Your task to perform on an android device: stop showing notifications on the lock screen Image 0: 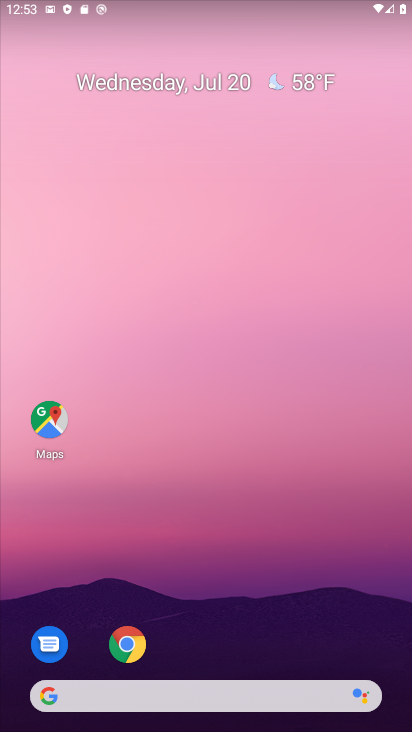
Step 0: drag from (198, 645) to (189, 176)
Your task to perform on an android device: stop showing notifications on the lock screen Image 1: 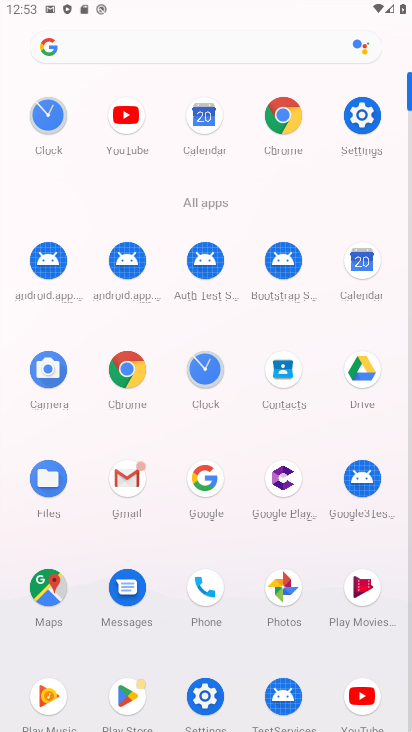
Step 1: click (361, 113)
Your task to perform on an android device: stop showing notifications on the lock screen Image 2: 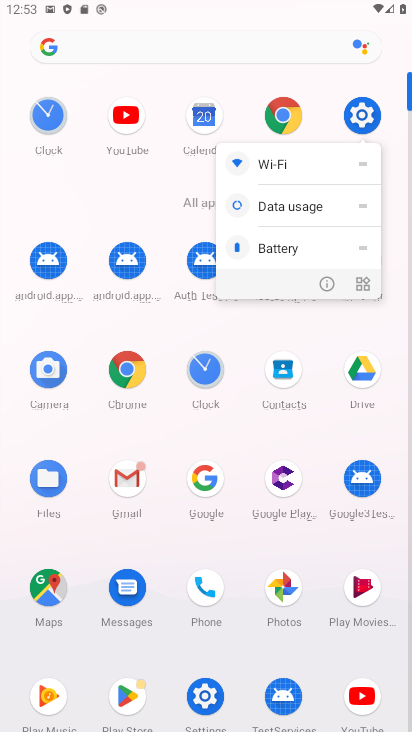
Step 2: click (349, 108)
Your task to perform on an android device: stop showing notifications on the lock screen Image 3: 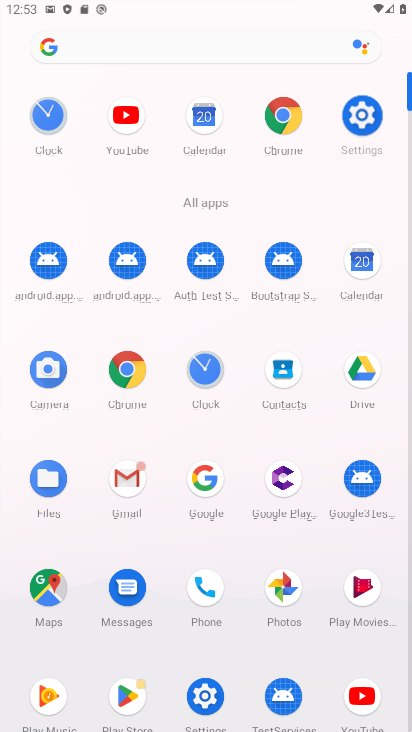
Step 3: click (361, 115)
Your task to perform on an android device: stop showing notifications on the lock screen Image 4: 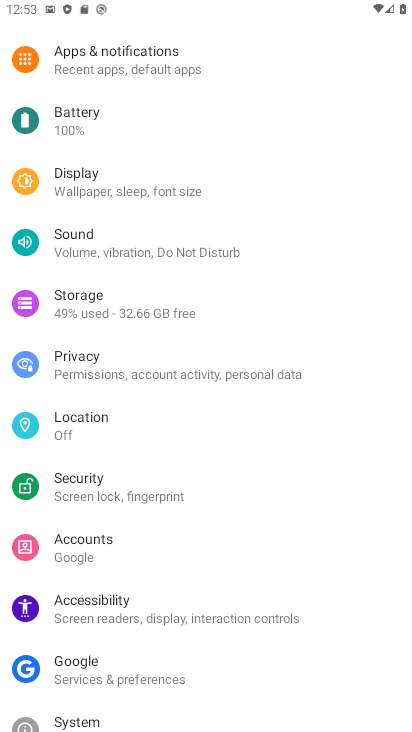
Step 4: click (104, 67)
Your task to perform on an android device: stop showing notifications on the lock screen Image 5: 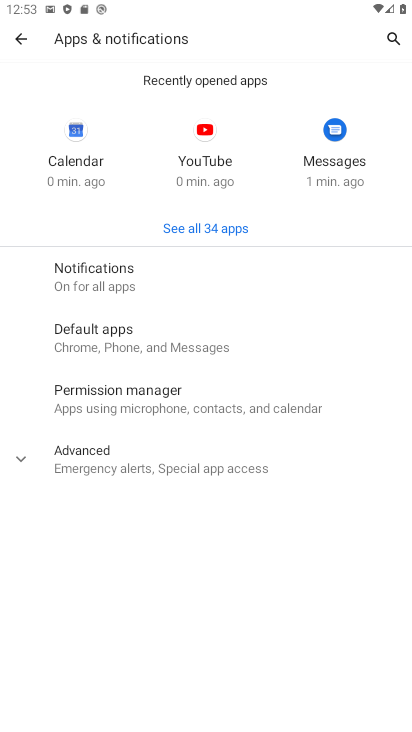
Step 5: click (155, 261)
Your task to perform on an android device: stop showing notifications on the lock screen Image 6: 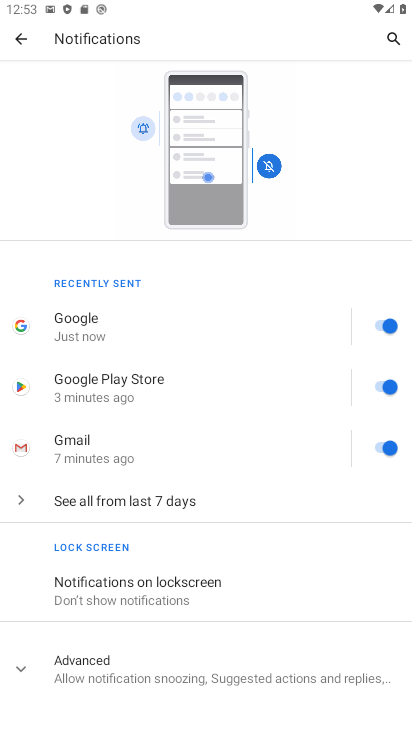
Step 6: click (133, 585)
Your task to perform on an android device: stop showing notifications on the lock screen Image 7: 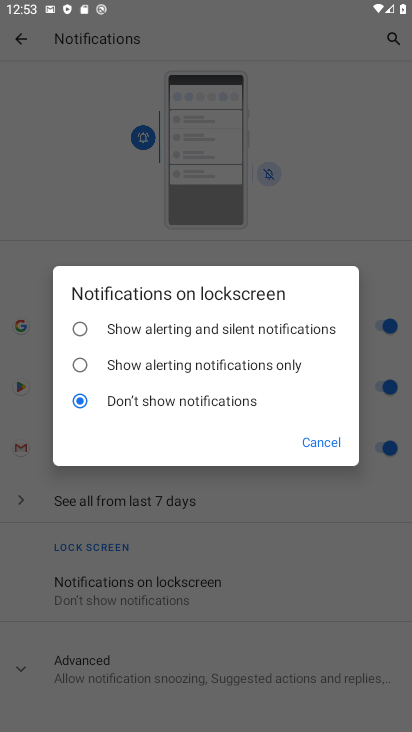
Step 7: task complete